Your task to perform on an android device: Open Amazon Image 0: 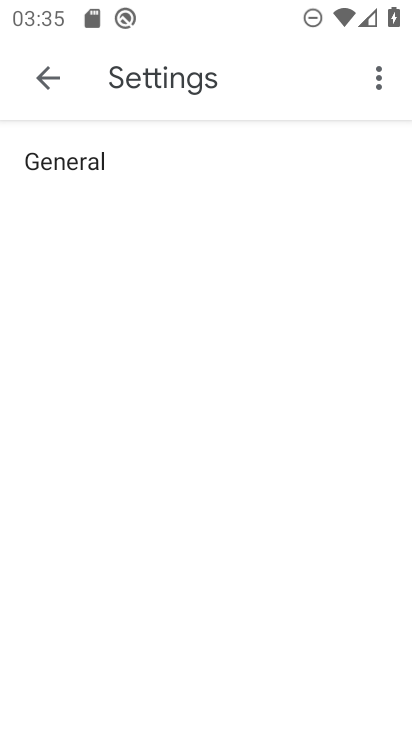
Step 0: press home button
Your task to perform on an android device: Open Amazon Image 1: 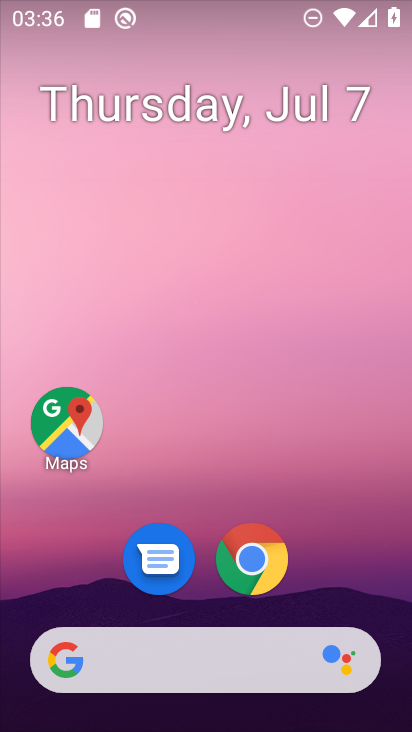
Step 1: drag from (372, 588) to (380, 198)
Your task to perform on an android device: Open Amazon Image 2: 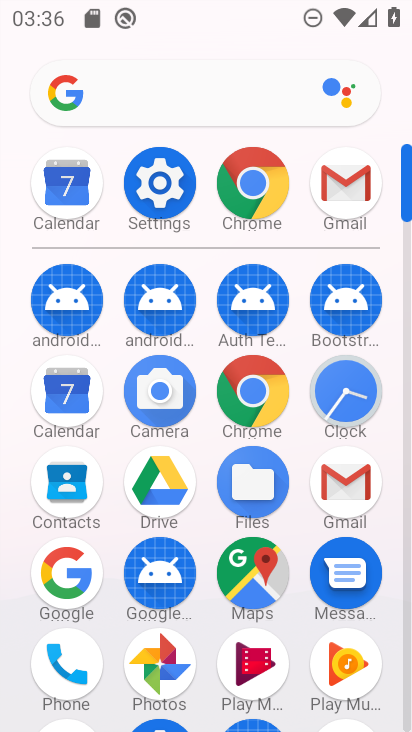
Step 2: click (267, 392)
Your task to perform on an android device: Open Amazon Image 3: 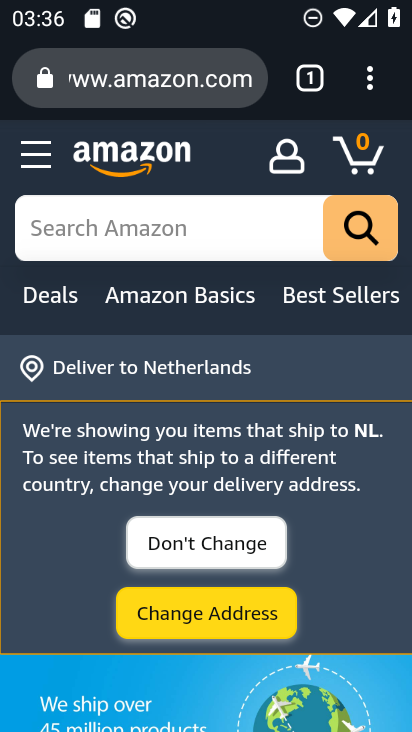
Step 3: task complete